Your task to perform on an android device: Go to Reddit.com Image 0: 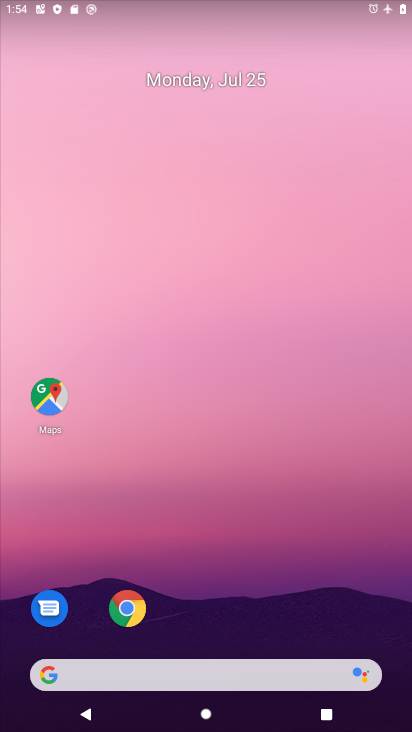
Step 0: drag from (288, 557) to (244, 53)
Your task to perform on an android device: Go to Reddit.com Image 1: 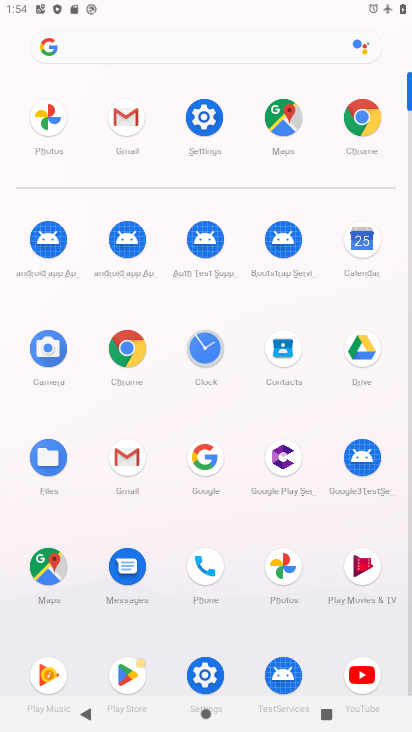
Step 1: click (365, 117)
Your task to perform on an android device: Go to Reddit.com Image 2: 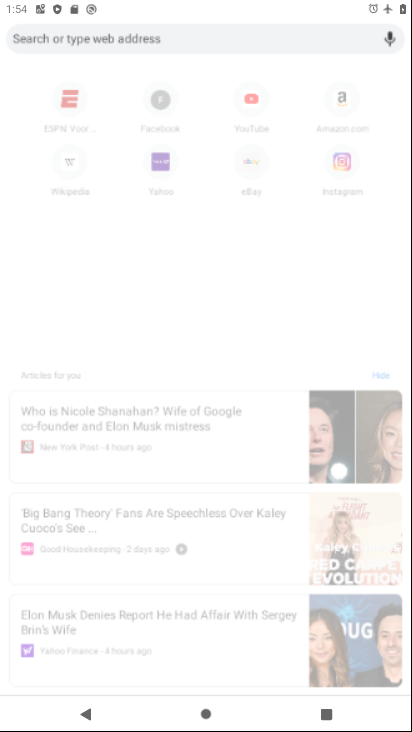
Step 2: click (187, 42)
Your task to perform on an android device: Go to Reddit.com Image 3: 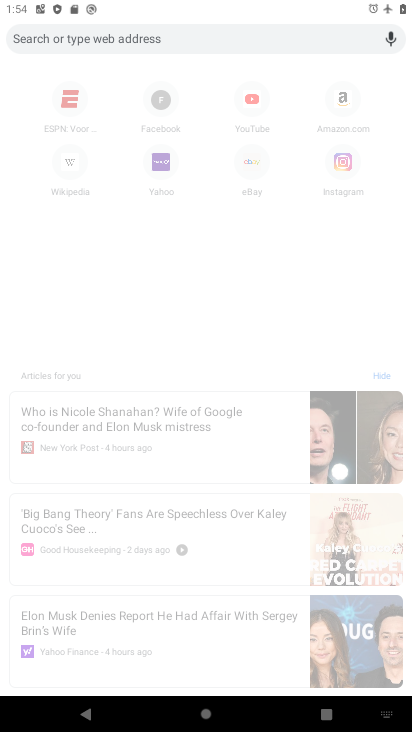
Step 3: type "reddit.com"
Your task to perform on an android device: Go to Reddit.com Image 4: 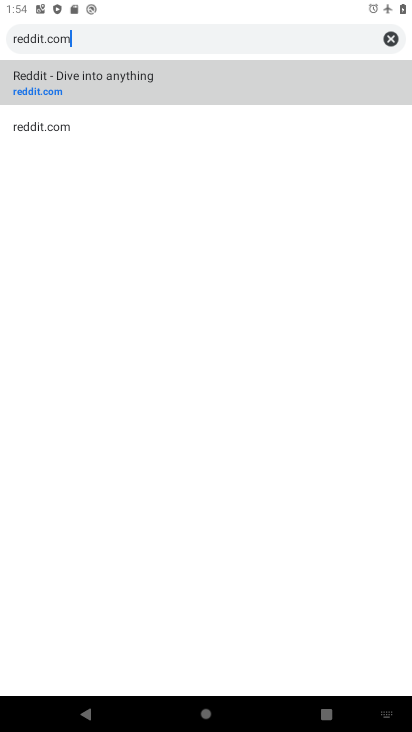
Step 4: click (36, 84)
Your task to perform on an android device: Go to Reddit.com Image 5: 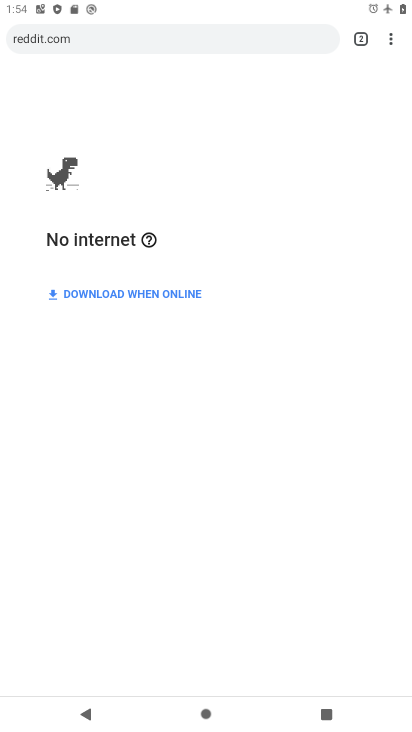
Step 5: task complete